Your task to perform on an android device: turn vacation reply on in the gmail app Image 0: 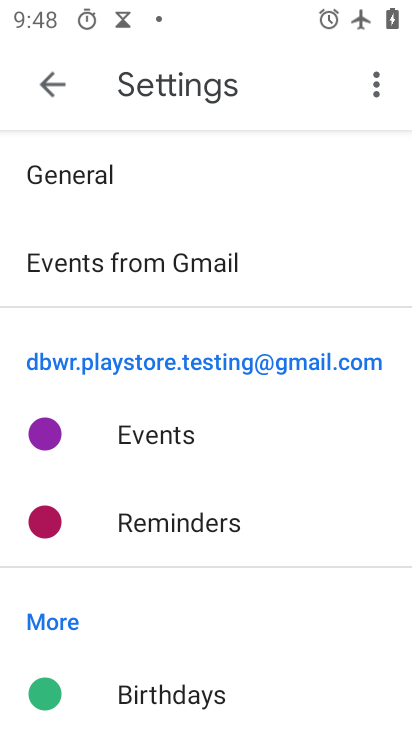
Step 0: press home button
Your task to perform on an android device: turn vacation reply on in the gmail app Image 1: 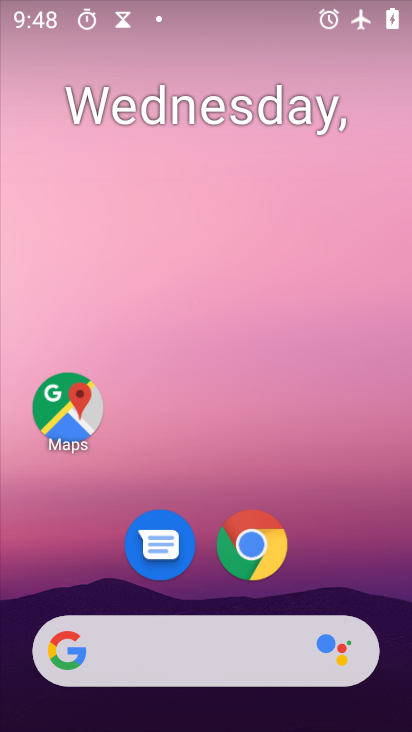
Step 1: drag from (194, 664) to (283, 97)
Your task to perform on an android device: turn vacation reply on in the gmail app Image 2: 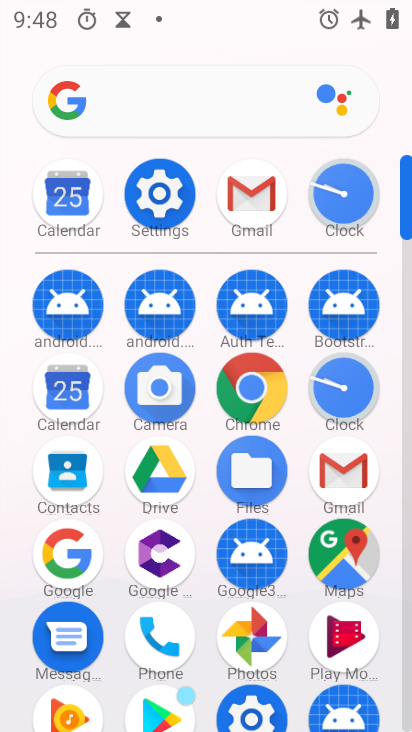
Step 2: click (252, 212)
Your task to perform on an android device: turn vacation reply on in the gmail app Image 3: 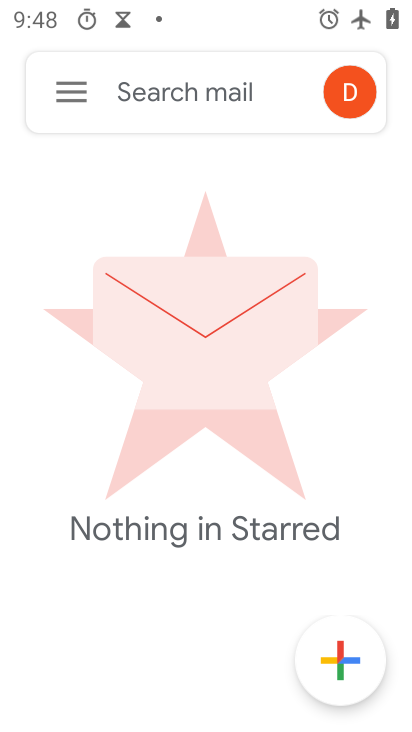
Step 3: click (67, 95)
Your task to perform on an android device: turn vacation reply on in the gmail app Image 4: 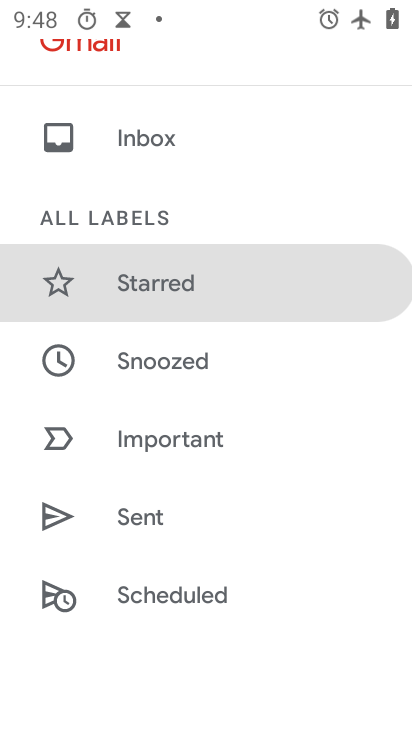
Step 4: drag from (274, 637) to (347, 48)
Your task to perform on an android device: turn vacation reply on in the gmail app Image 5: 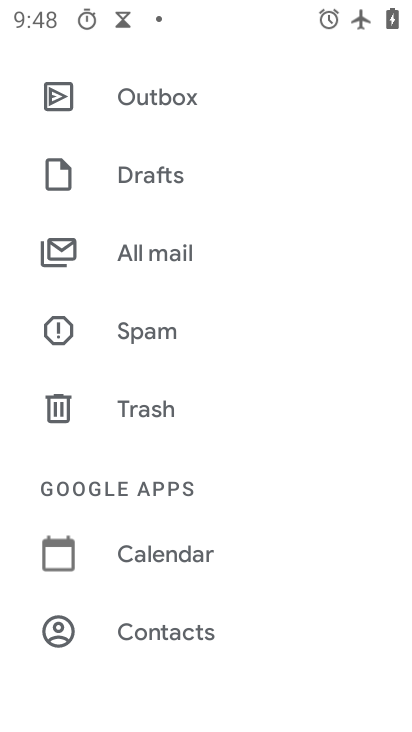
Step 5: drag from (244, 626) to (373, 174)
Your task to perform on an android device: turn vacation reply on in the gmail app Image 6: 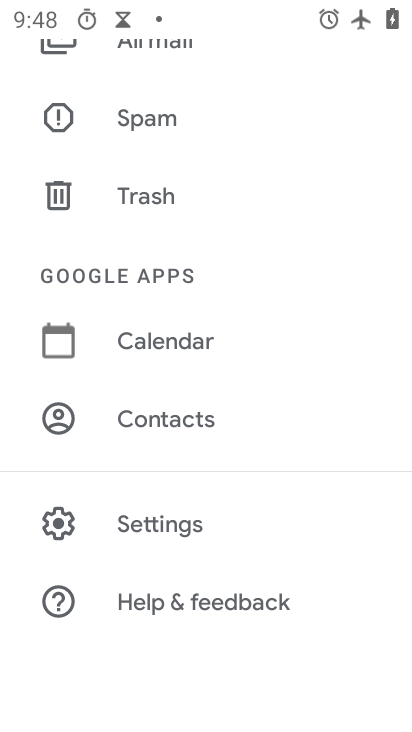
Step 6: click (159, 528)
Your task to perform on an android device: turn vacation reply on in the gmail app Image 7: 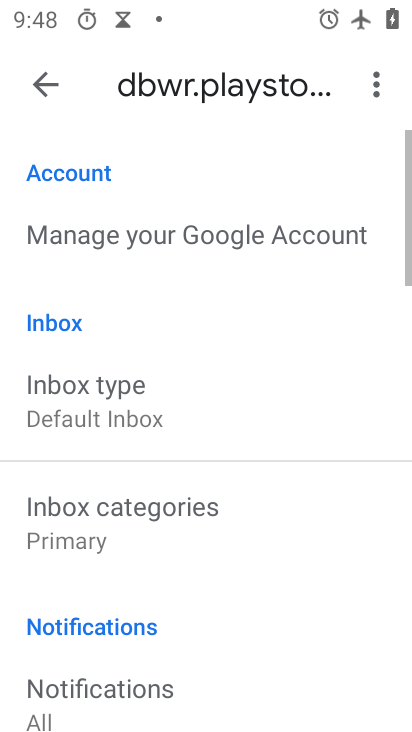
Step 7: drag from (257, 603) to (402, 99)
Your task to perform on an android device: turn vacation reply on in the gmail app Image 8: 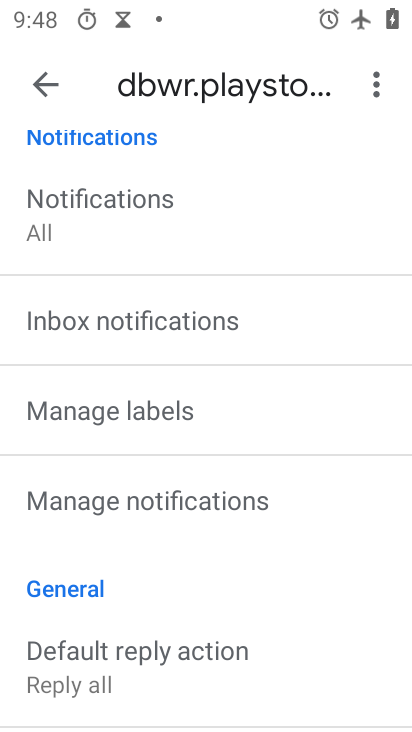
Step 8: drag from (306, 683) to (411, 142)
Your task to perform on an android device: turn vacation reply on in the gmail app Image 9: 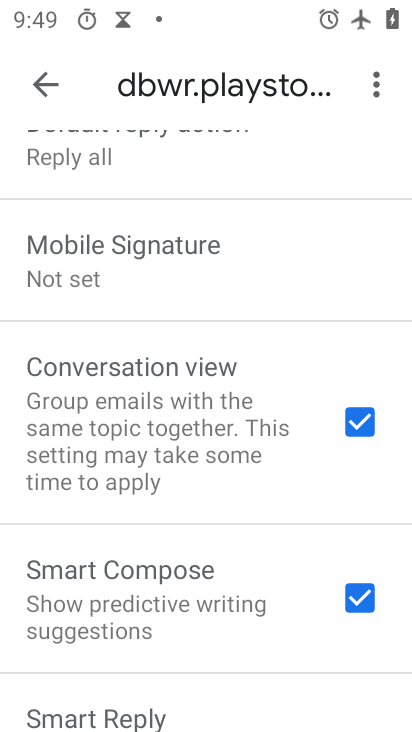
Step 9: drag from (306, 407) to (391, 115)
Your task to perform on an android device: turn vacation reply on in the gmail app Image 10: 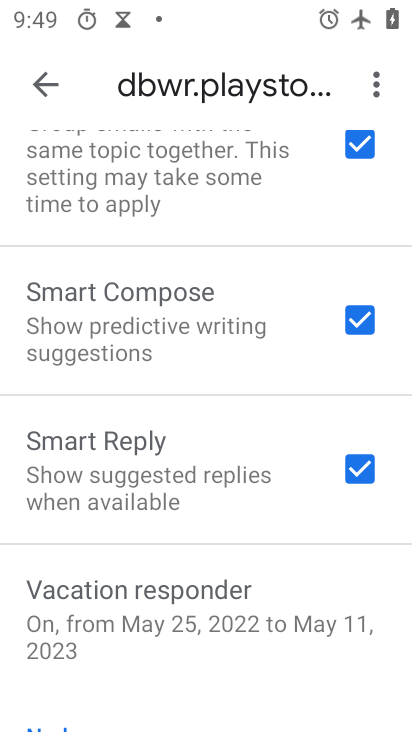
Step 10: click (147, 614)
Your task to perform on an android device: turn vacation reply on in the gmail app Image 11: 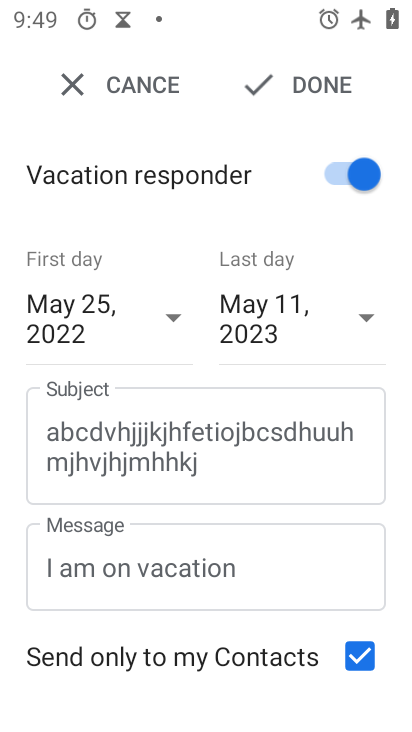
Step 11: task complete